Your task to perform on an android device: toggle notification dots Image 0: 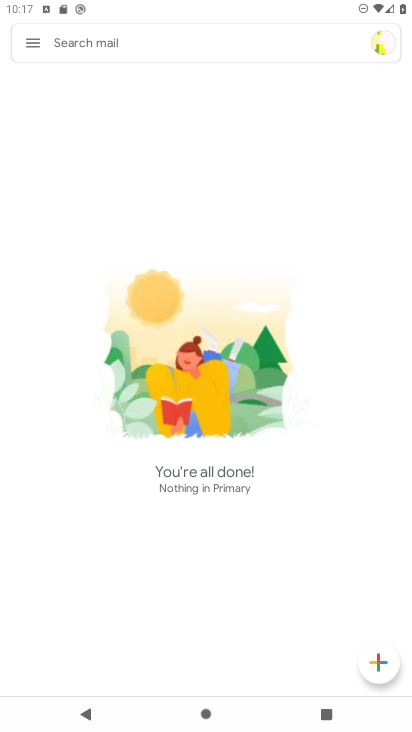
Step 0: press home button
Your task to perform on an android device: toggle notification dots Image 1: 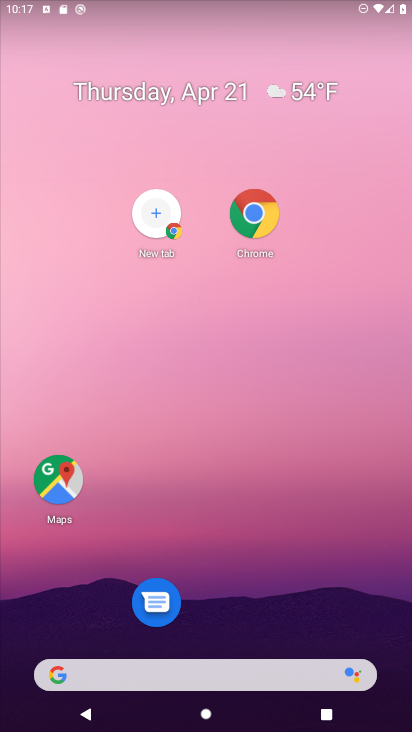
Step 1: drag from (230, 641) to (196, 44)
Your task to perform on an android device: toggle notification dots Image 2: 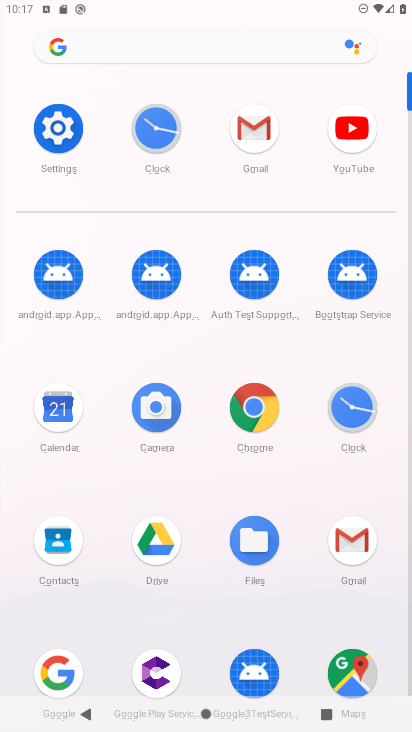
Step 2: click (66, 122)
Your task to perform on an android device: toggle notification dots Image 3: 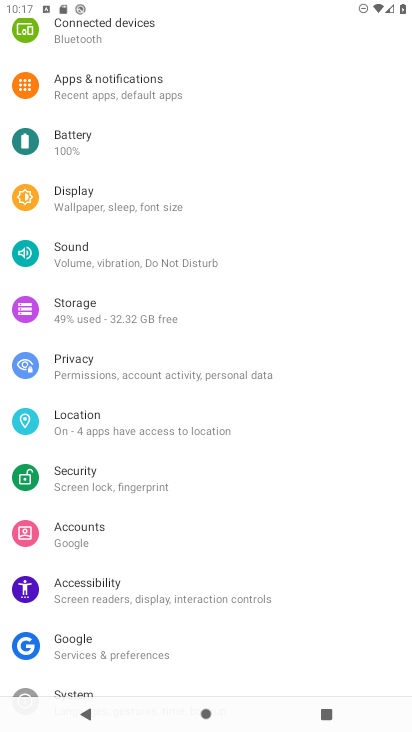
Step 3: click (126, 106)
Your task to perform on an android device: toggle notification dots Image 4: 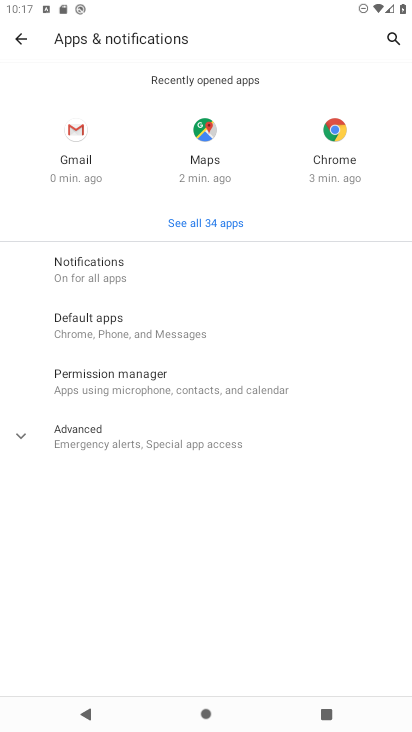
Step 4: click (109, 443)
Your task to perform on an android device: toggle notification dots Image 5: 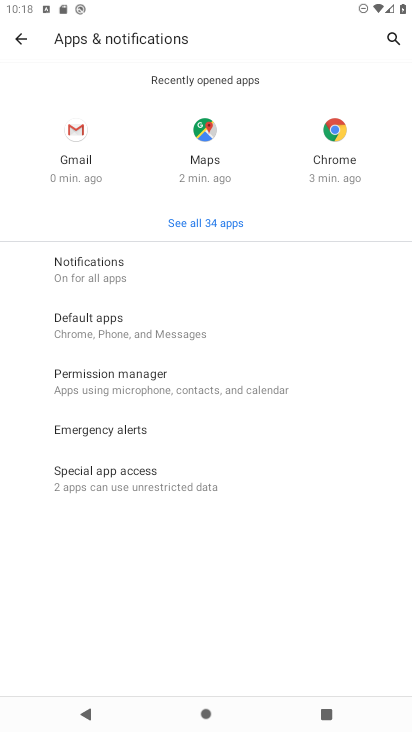
Step 5: click (170, 257)
Your task to perform on an android device: toggle notification dots Image 6: 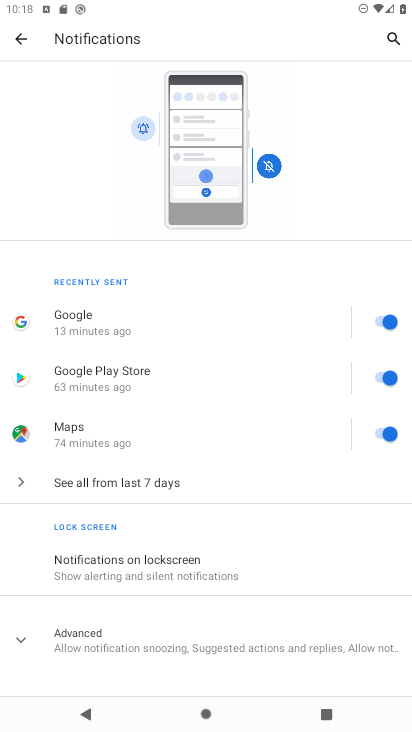
Step 6: click (118, 644)
Your task to perform on an android device: toggle notification dots Image 7: 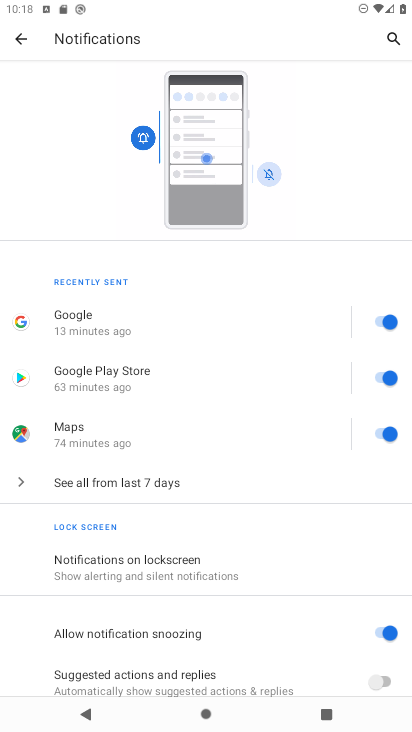
Step 7: drag from (118, 644) to (180, 125)
Your task to perform on an android device: toggle notification dots Image 8: 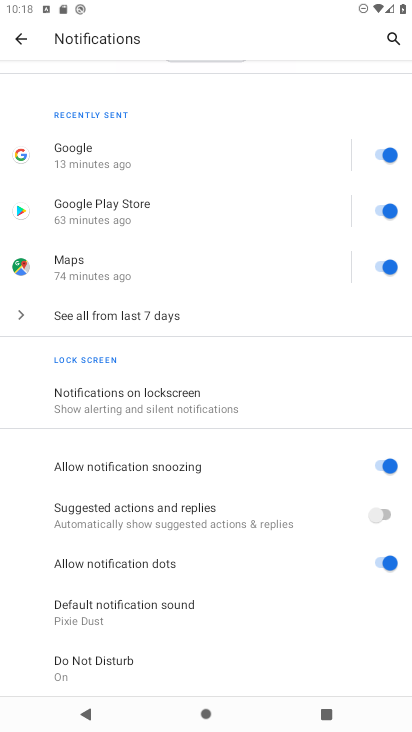
Step 8: click (386, 566)
Your task to perform on an android device: toggle notification dots Image 9: 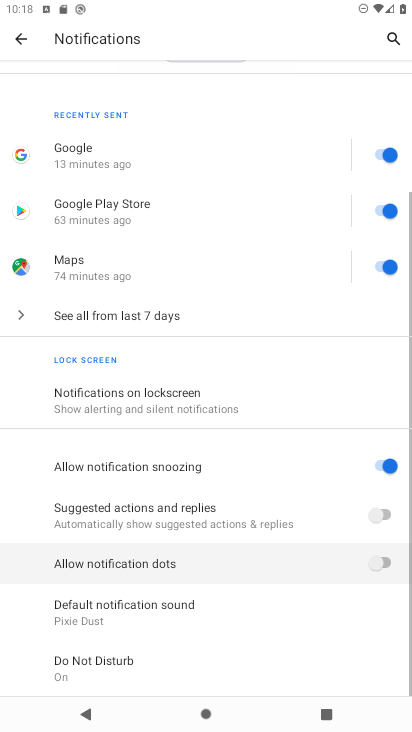
Step 9: click (386, 566)
Your task to perform on an android device: toggle notification dots Image 10: 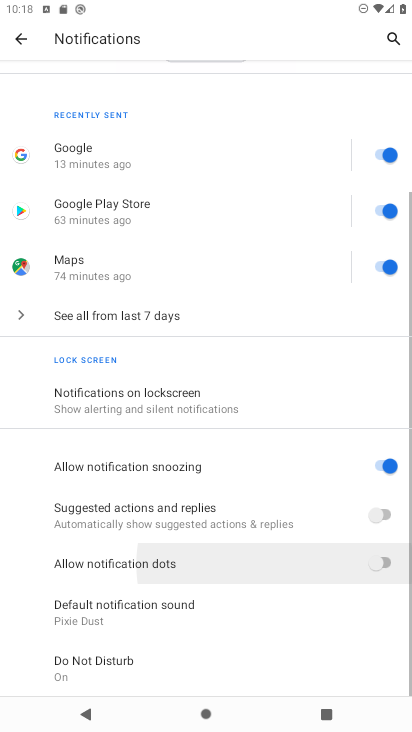
Step 10: click (386, 566)
Your task to perform on an android device: toggle notification dots Image 11: 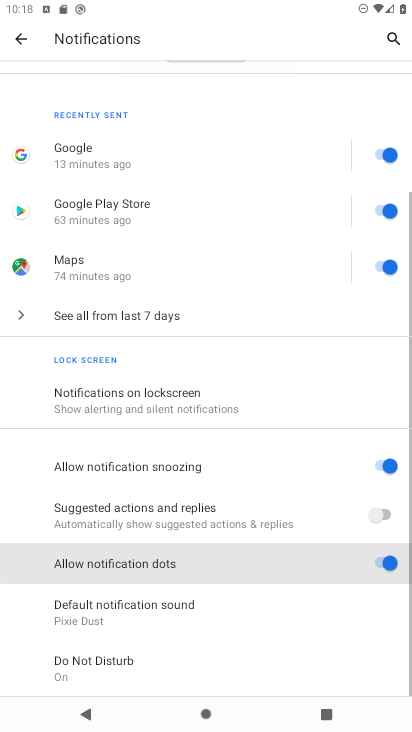
Step 11: click (386, 566)
Your task to perform on an android device: toggle notification dots Image 12: 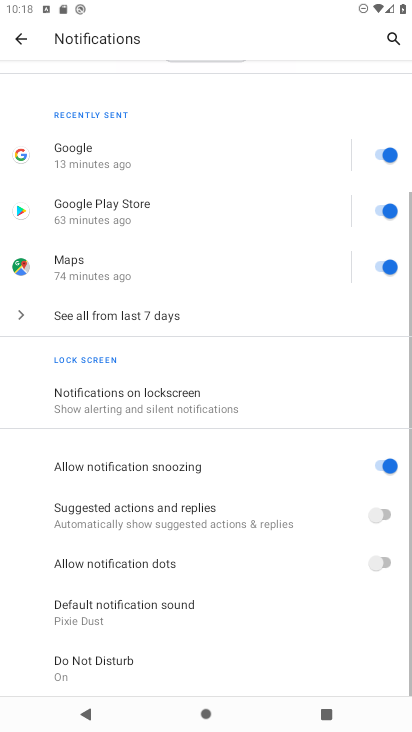
Step 12: click (386, 566)
Your task to perform on an android device: toggle notification dots Image 13: 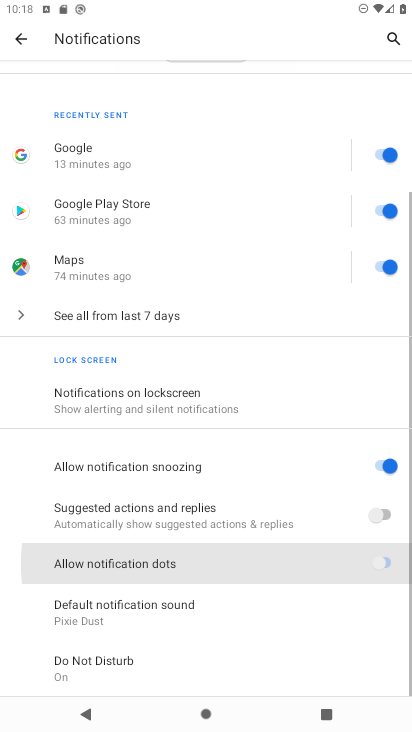
Step 13: click (386, 566)
Your task to perform on an android device: toggle notification dots Image 14: 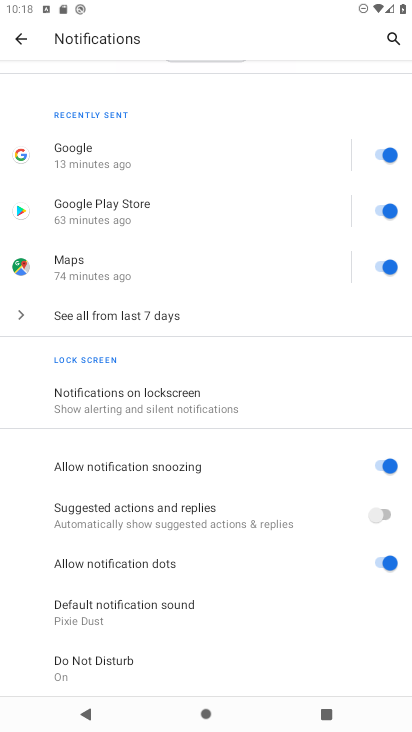
Step 14: task complete